Your task to perform on an android device: Go to location settings Image 0: 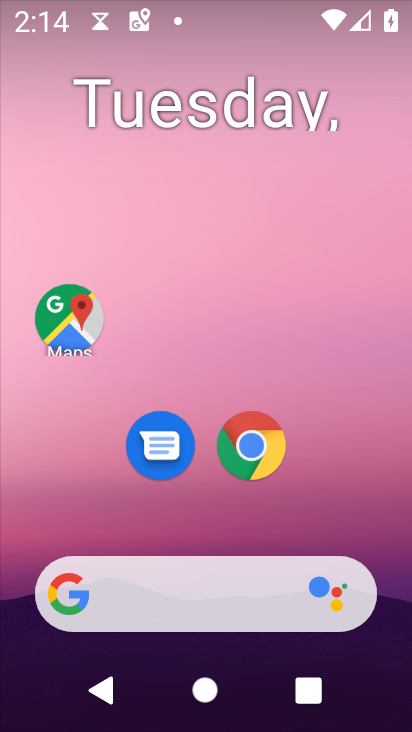
Step 0: drag from (281, 509) to (295, 55)
Your task to perform on an android device: Go to location settings Image 1: 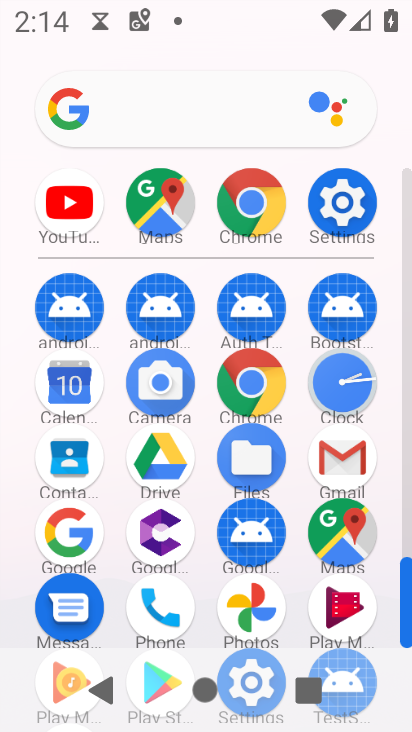
Step 1: click (349, 216)
Your task to perform on an android device: Go to location settings Image 2: 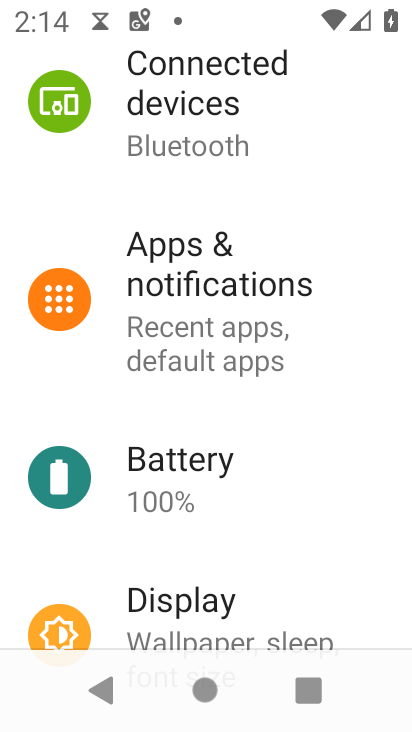
Step 2: drag from (286, 182) to (313, 72)
Your task to perform on an android device: Go to location settings Image 3: 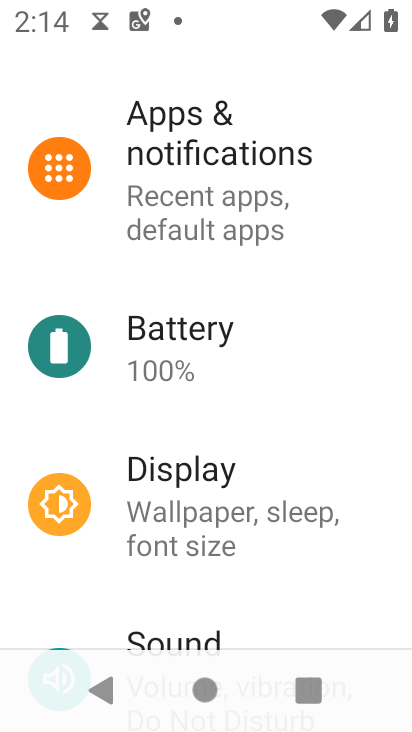
Step 3: drag from (238, 534) to (229, 168)
Your task to perform on an android device: Go to location settings Image 4: 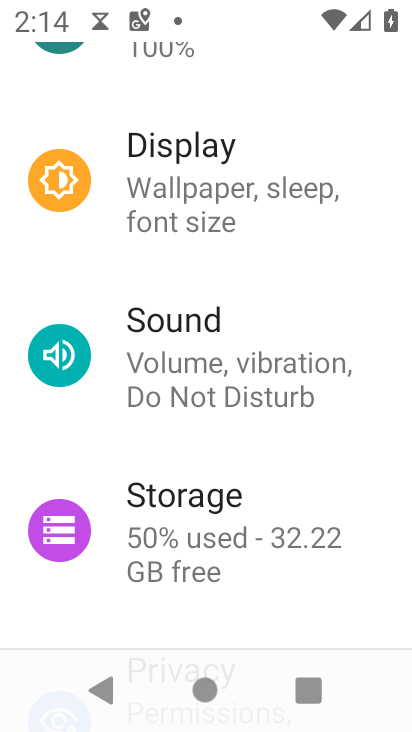
Step 4: drag from (231, 595) to (178, 30)
Your task to perform on an android device: Go to location settings Image 5: 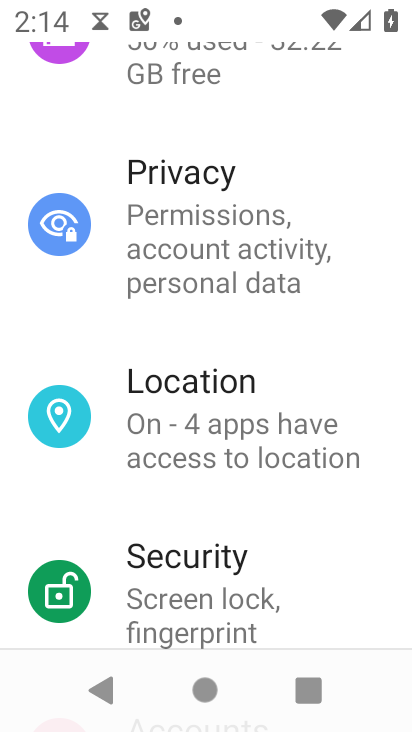
Step 5: click (182, 434)
Your task to perform on an android device: Go to location settings Image 6: 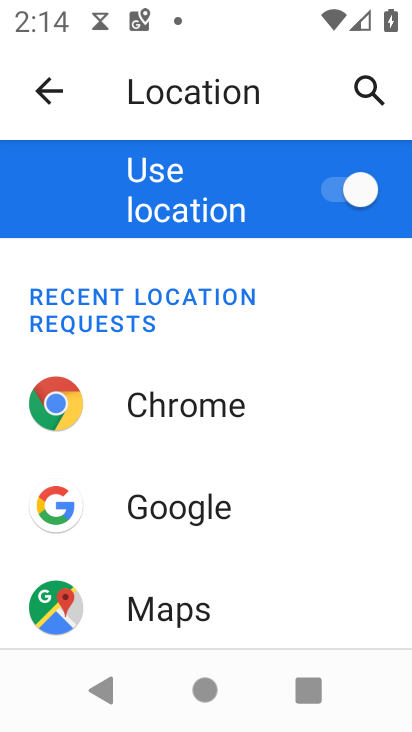
Step 6: task complete